Your task to perform on an android device: change alarm snooze length Image 0: 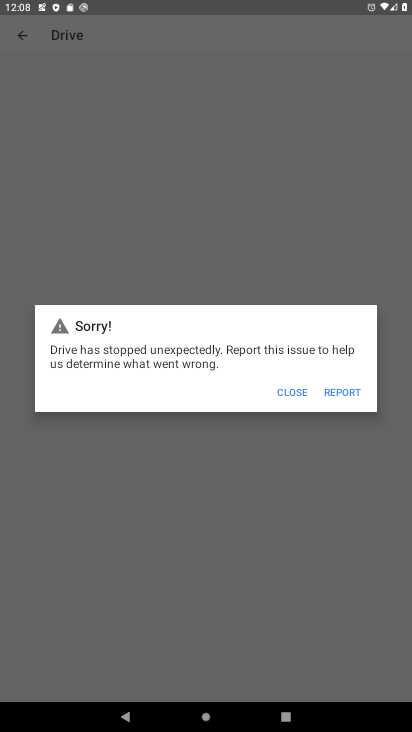
Step 0: press home button
Your task to perform on an android device: change alarm snooze length Image 1: 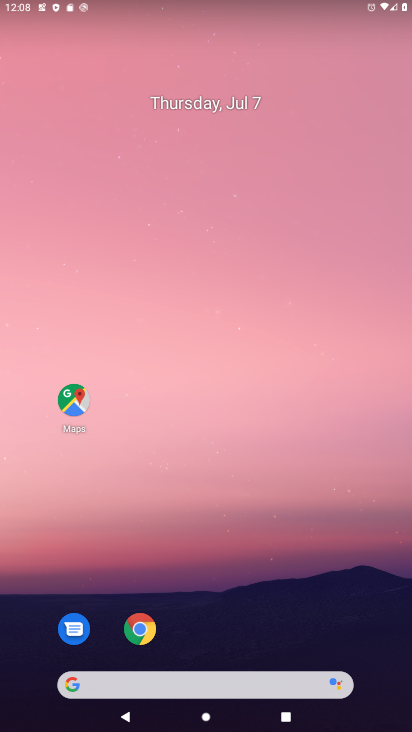
Step 1: drag from (222, 576) to (222, 180)
Your task to perform on an android device: change alarm snooze length Image 2: 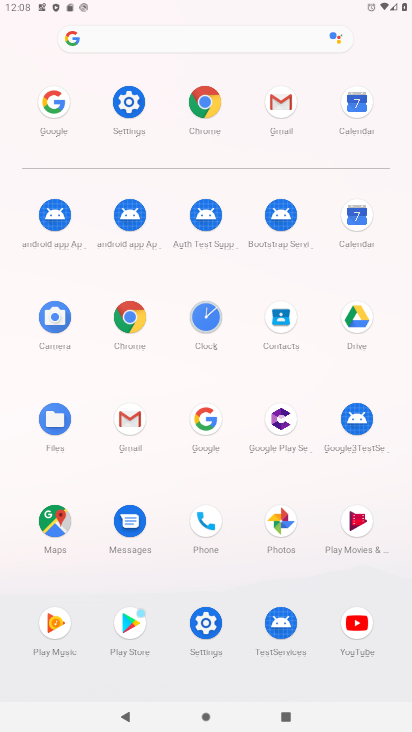
Step 2: click (198, 303)
Your task to perform on an android device: change alarm snooze length Image 3: 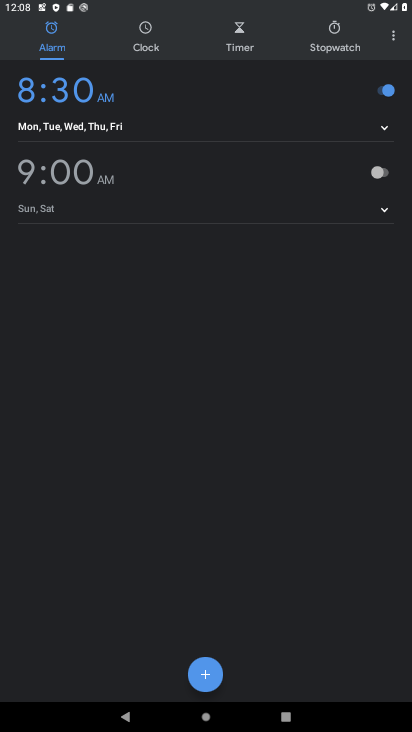
Step 3: click (391, 46)
Your task to perform on an android device: change alarm snooze length Image 4: 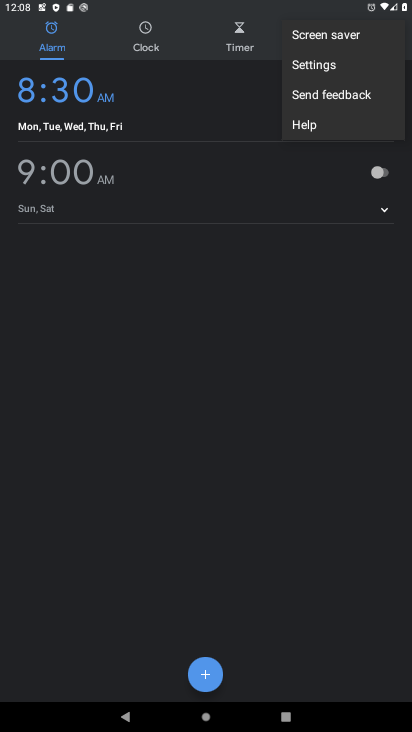
Step 4: click (231, 420)
Your task to perform on an android device: change alarm snooze length Image 5: 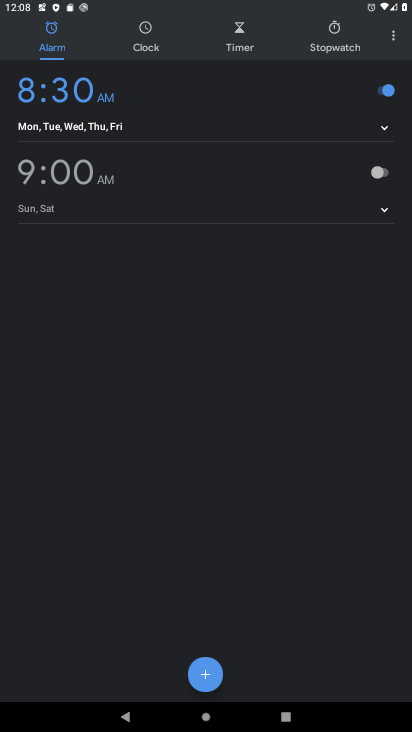
Step 5: click (387, 37)
Your task to perform on an android device: change alarm snooze length Image 6: 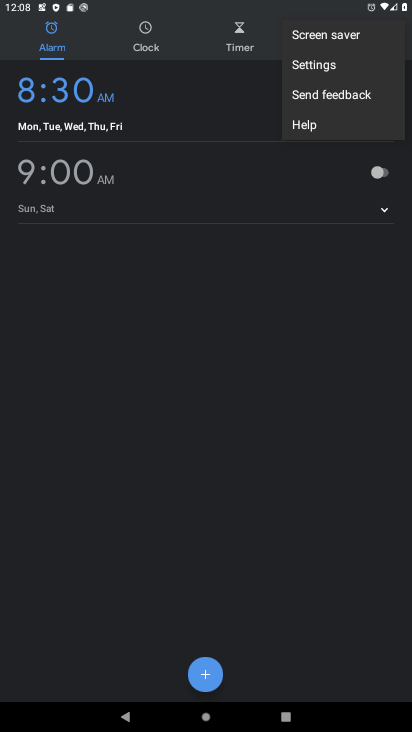
Step 6: click (305, 70)
Your task to perform on an android device: change alarm snooze length Image 7: 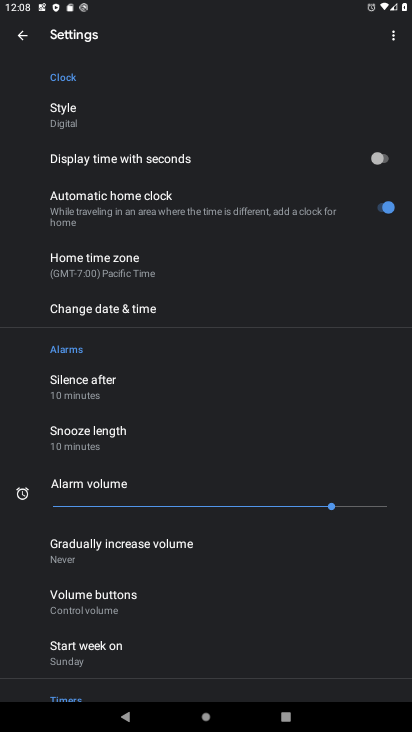
Step 7: click (132, 446)
Your task to perform on an android device: change alarm snooze length Image 8: 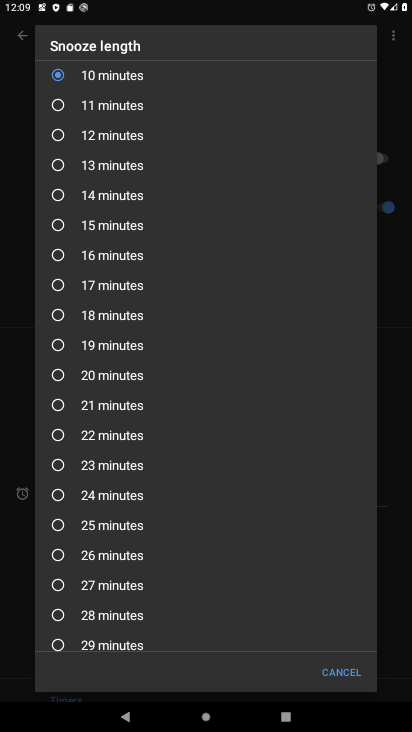
Step 8: click (107, 412)
Your task to perform on an android device: change alarm snooze length Image 9: 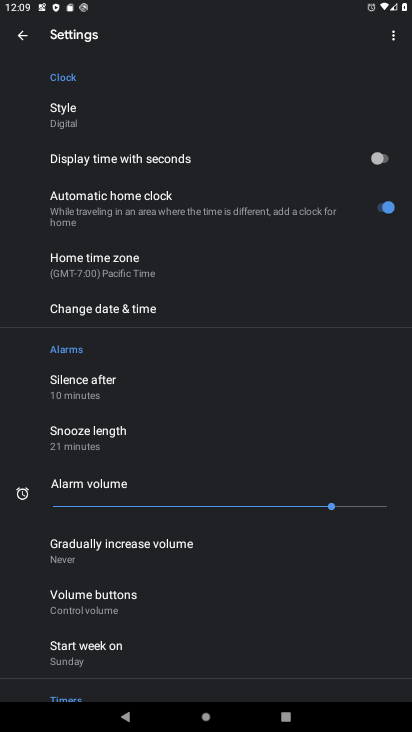
Step 9: task complete